Your task to perform on an android device: Turn off the flashlight Image 0: 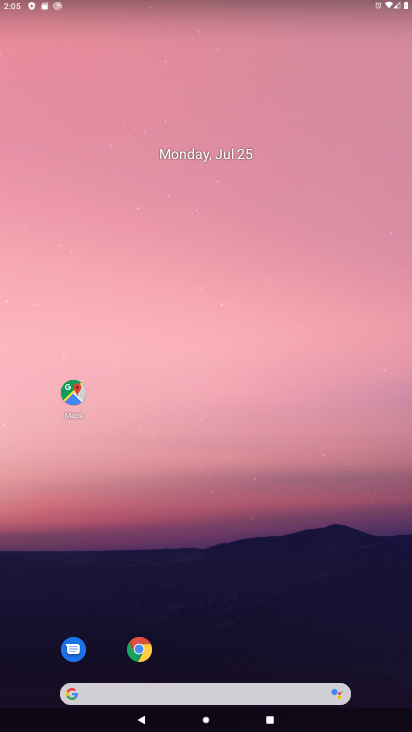
Step 0: drag from (214, 10) to (230, 347)
Your task to perform on an android device: Turn off the flashlight Image 1: 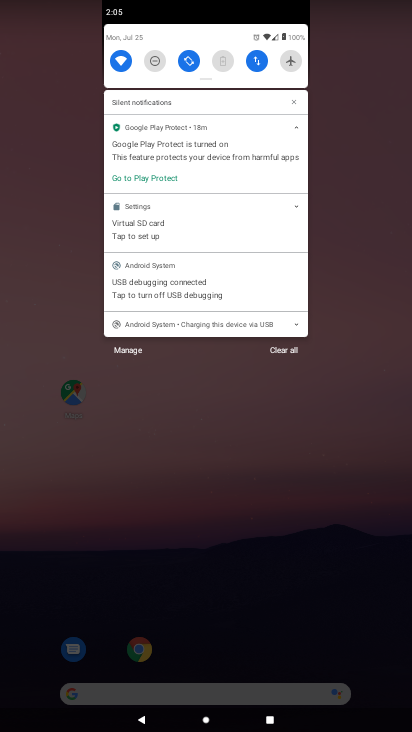
Step 1: drag from (199, 82) to (205, 416)
Your task to perform on an android device: Turn off the flashlight Image 2: 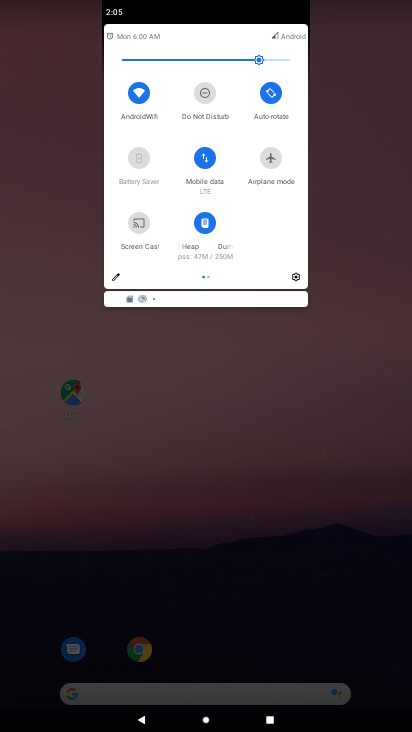
Step 2: click (120, 278)
Your task to perform on an android device: Turn off the flashlight Image 3: 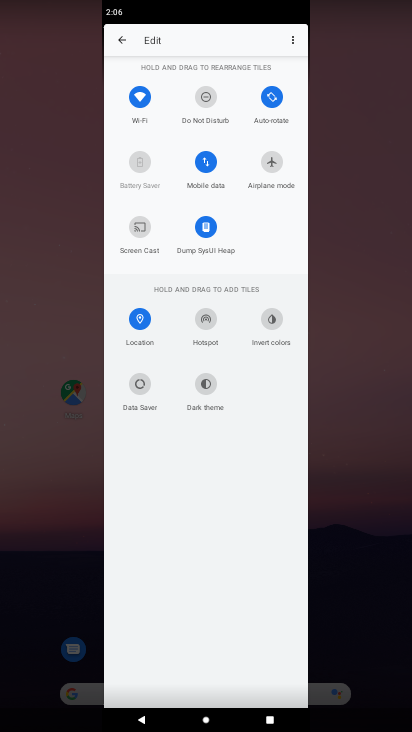
Step 3: task complete